Your task to perform on an android device: Show me productivity apps on the Play Store Image 0: 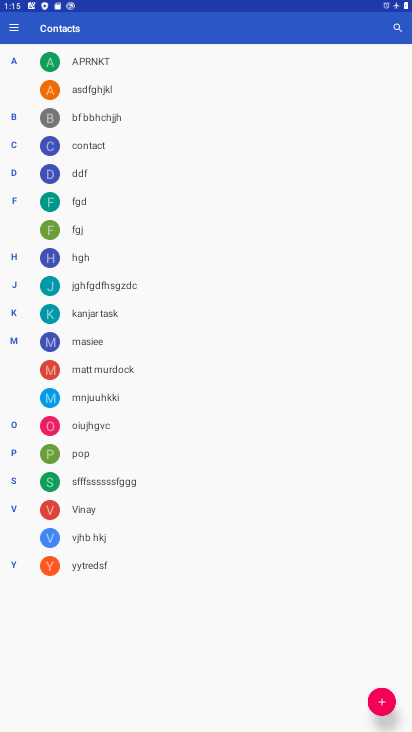
Step 0: press home button
Your task to perform on an android device: Show me productivity apps on the Play Store Image 1: 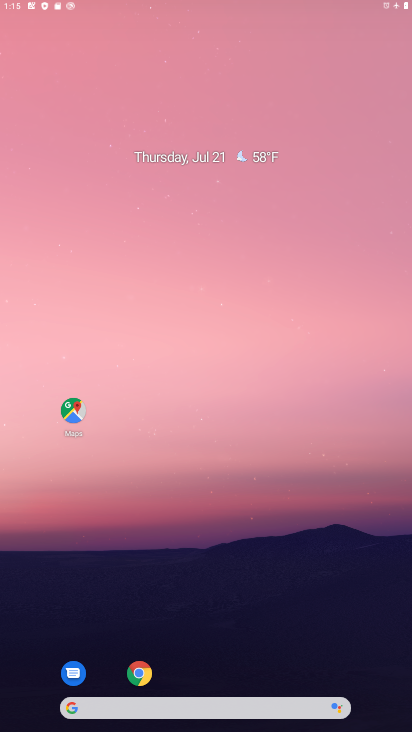
Step 1: drag from (125, 717) to (181, 279)
Your task to perform on an android device: Show me productivity apps on the Play Store Image 2: 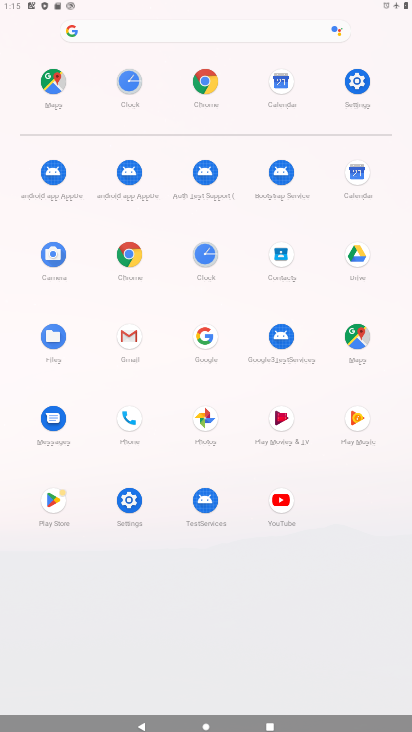
Step 2: click (355, 328)
Your task to perform on an android device: Show me productivity apps on the Play Store Image 3: 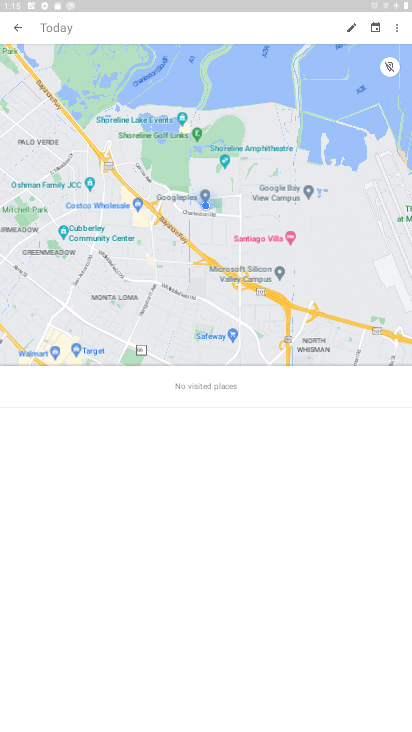
Step 3: click (14, 20)
Your task to perform on an android device: Show me productivity apps on the Play Store Image 4: 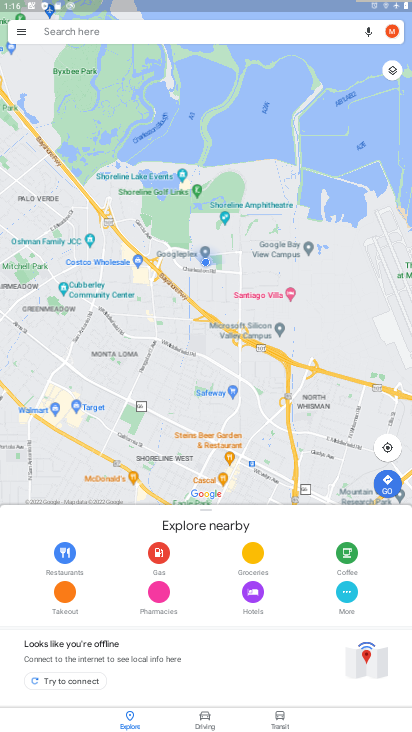
Step 4: click (7, 37)
Your task to perform on an android device: Show me productivity apps on the Play Store Image 5: 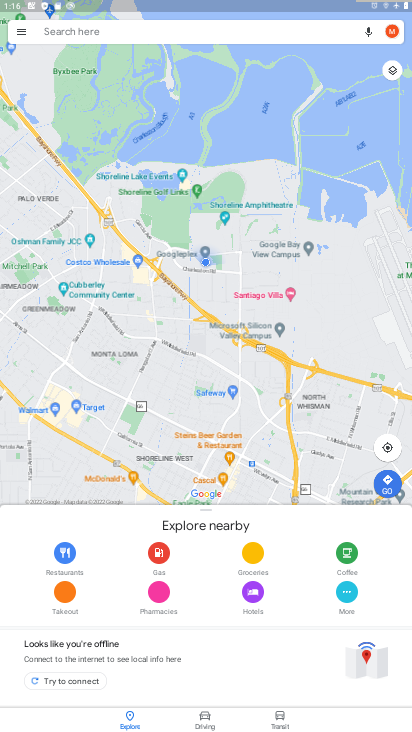
Step 5: press home button
Your task to perform on an android device: Show me productivity apps on the Play Store Image 6: 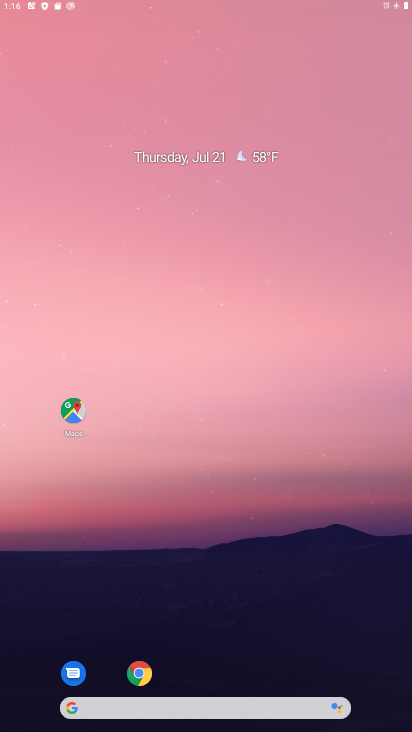
Step 6: drag from (161, 712) to (176, 301)
Your task to perform on an android device: Show me productivity apps on the Play Store Image 7: 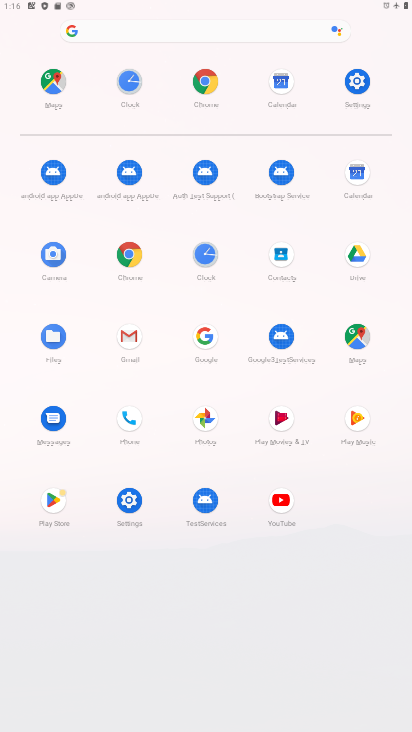
Step 7: click (46, 514)
Your task to perform on an android device: Show me productivity apps on the Play Store Image 8: 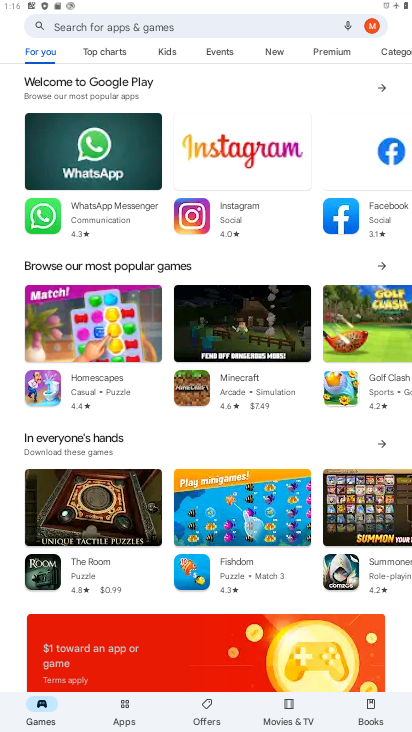
Step 8: click (98, 699)
Your task to perform on an android device: Show me productivity apps on the Play Store Image 9: 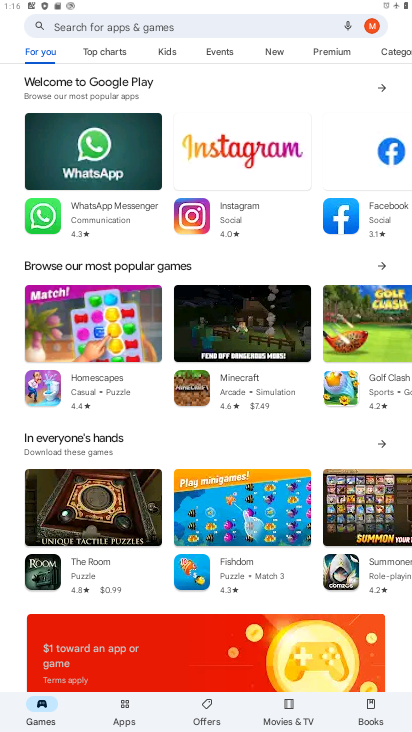
Step 9: click (100, 699)
Your task to perform on an android device: Show me productivity apps on the Play Store Image 10: 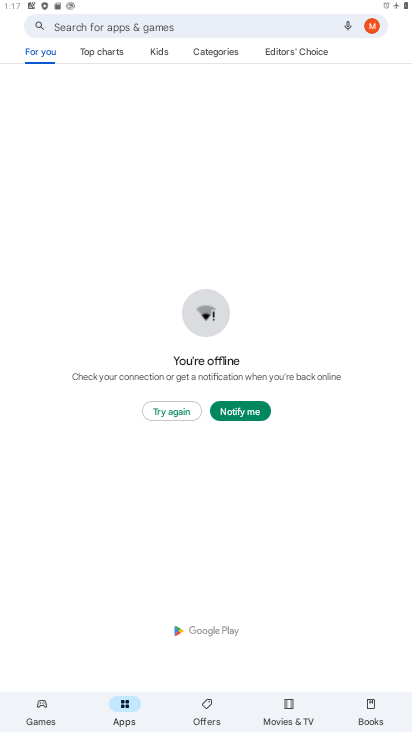
Step 10: task complete